Your task to perform on an android device: turn on the 24-hour format for clock Image 0: 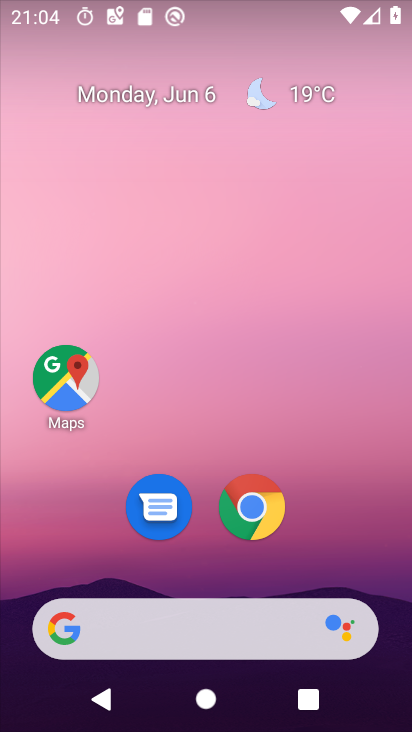
Step 0: press home button
Your task to perform on an android device: turn on the 24-hour format for clock Image 1: 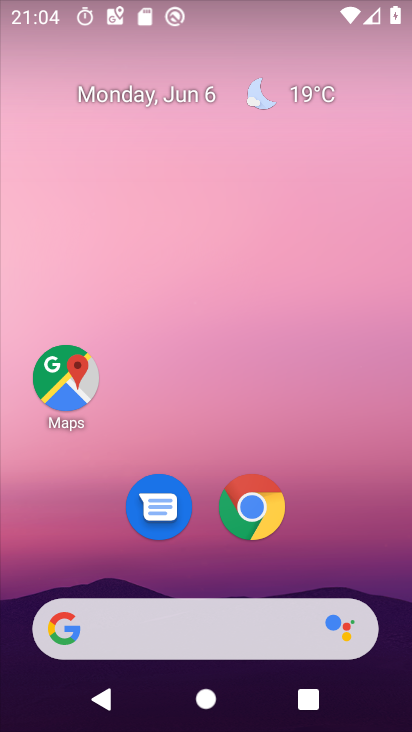
Step 1: drag from (356, 531) to (387, 111)
Your task to perform on an android device: turn on the 24-hour format for clock Image 2: 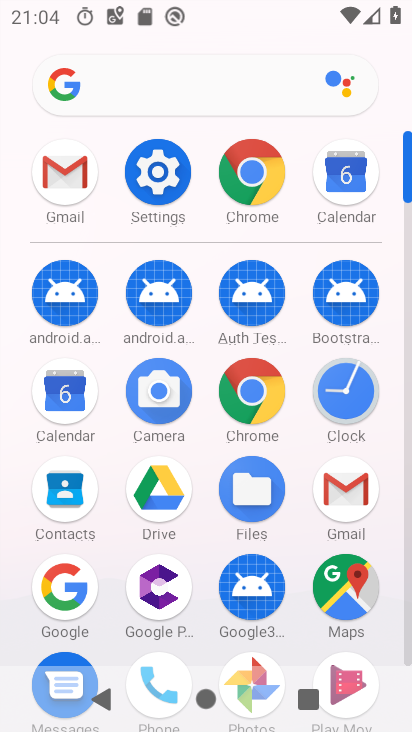
Step 2: click (355, 414)
Your task to perform on an android device: turn on the 24-hour format for clock Image 3: 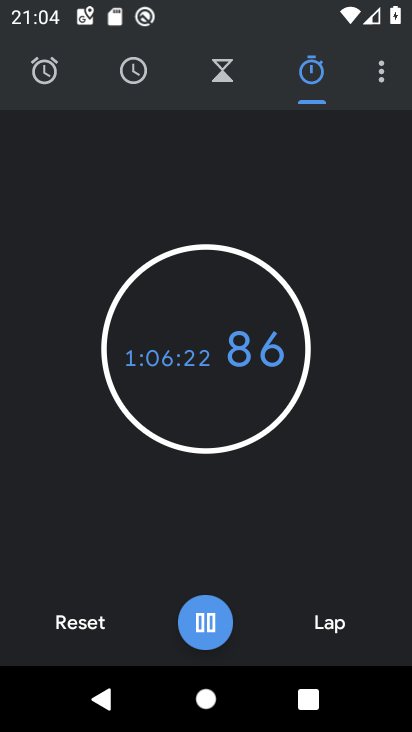
Step 3: click (371, 55)
Your task to perform on an android device: turn on the 24-hour format for clock Image 4: 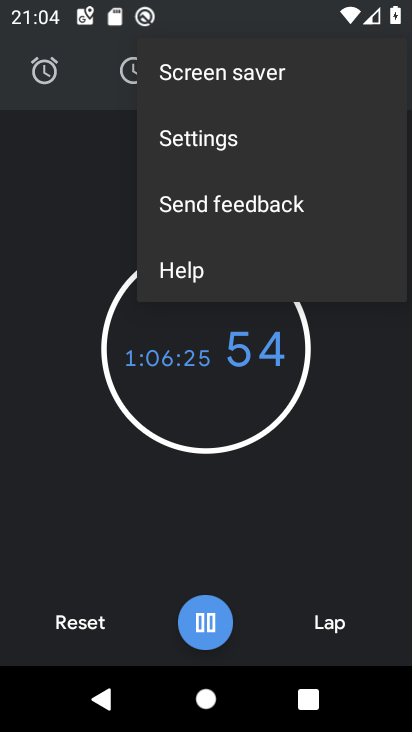
Step 4: click (256, 119)
Your task to perform on an android device: turn on the 24-hour format for clock Image 5: 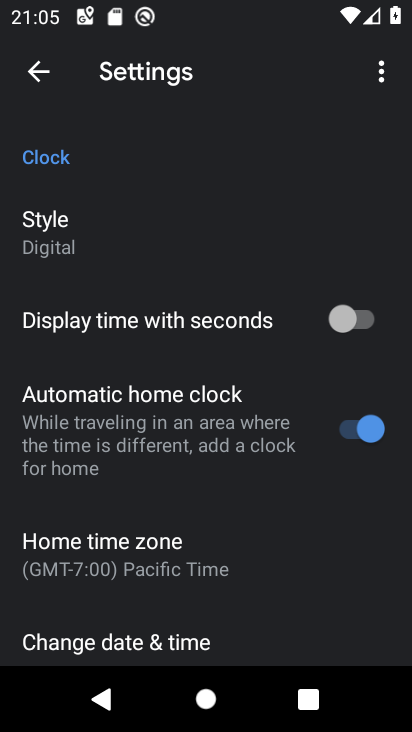
Step 5: click (265, 633)
Your task to perform on an android device: turn on the 24-hour format for clock Image 6: 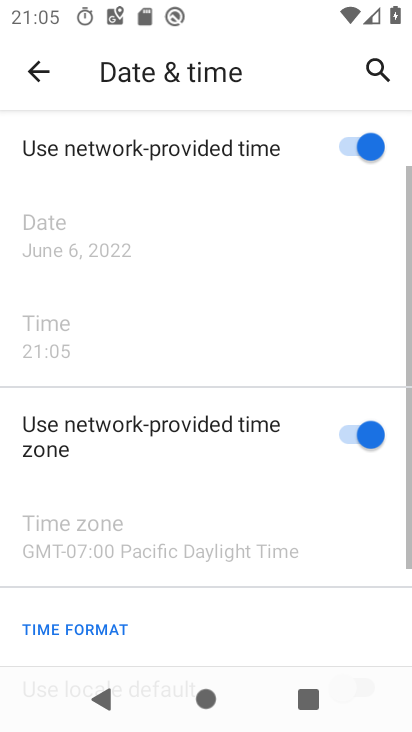
Step 6: task complete